Your task to perform on an android device: turn vacation reply on in the gmail app Image 0: 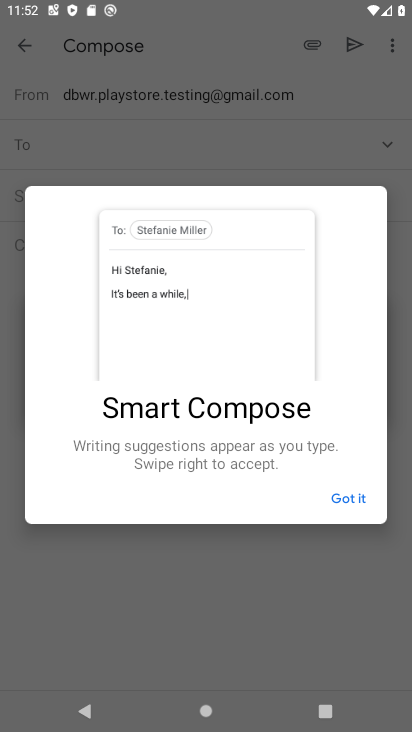
Step 0: press home button
Your task to perform on an android device: turn vacation reply on in the gmail app Image 1: 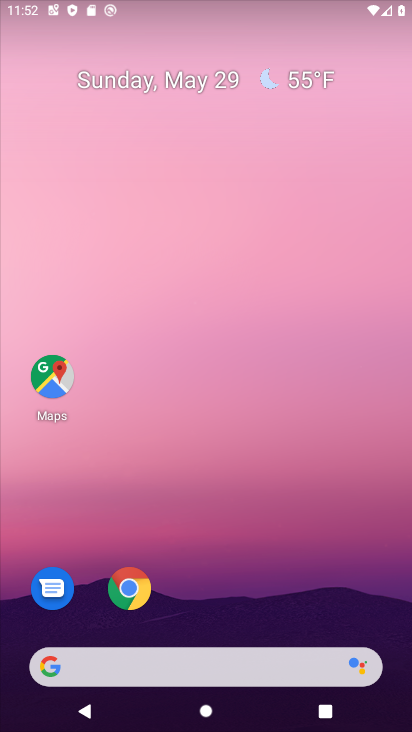
Step 1: drag from (337, 542) to (379, 279)
Your task to perform on an android device: turn vacation reply on in the gmail app Image 2: 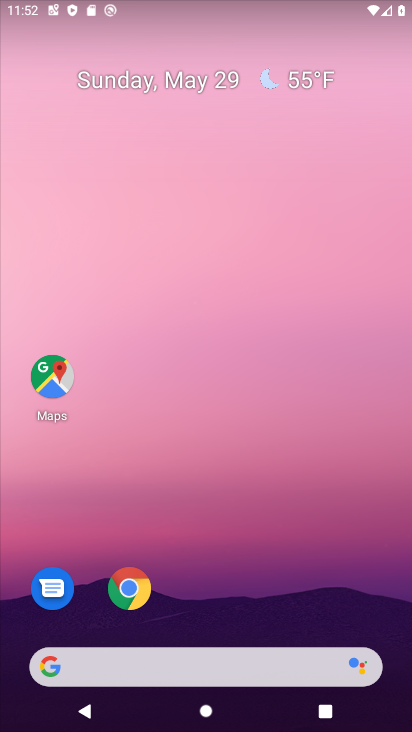
Step 2: drag from (326, 533) to (392, 81)
Your task to perform on an android device: turn vacation reply on in the gmail app Image 3: 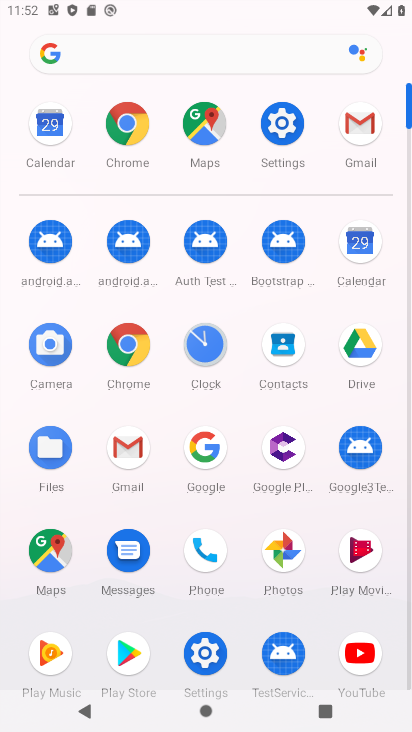
Step 3: click (361, 116)
Your task to perform on an android device: turn vacation reply on in the gmail app Image 4: 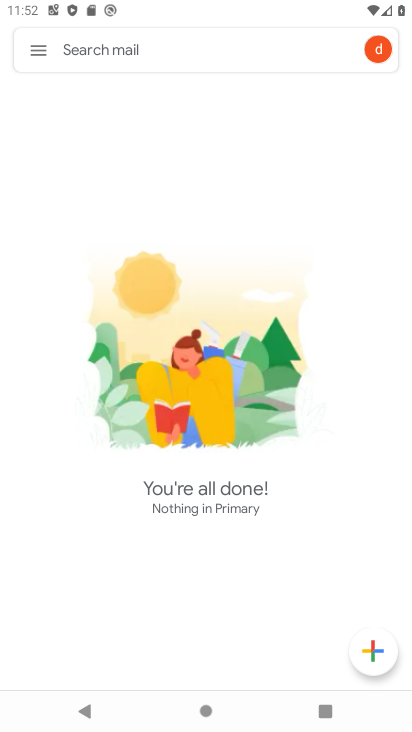
Step 4: click (41, 47)
Your task to perform on an android device: turn vacation reply on in the gmail app Image 5: 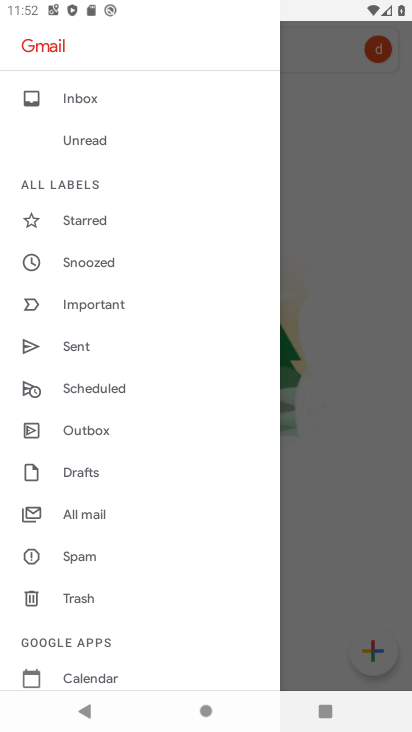
Step 5: drag from (112, 642) to (109, 213)
Your task to perform on an android device: turn vacation reply on in the gmail app Image 6: 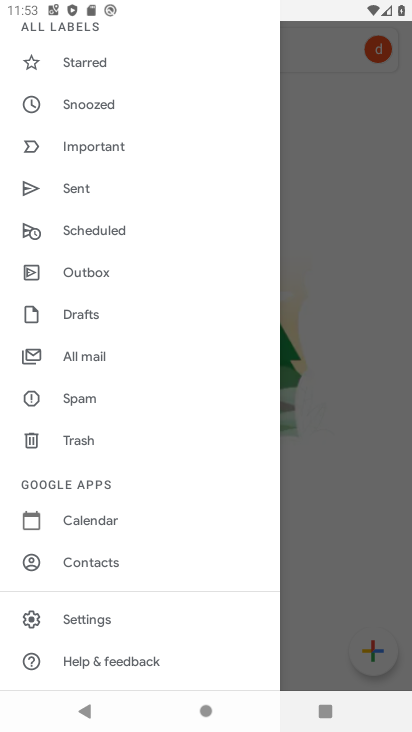
Step 6: drag from (166, 629) to (218, 170)
Your task to perform on an android device: turn vacation reply on in the gmail app Image 7: 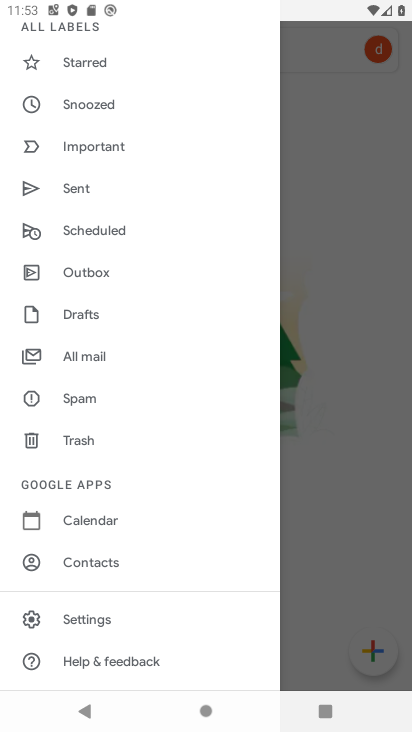
Step 7: click (71, 614)
Your task to perform on an android device: turn vacation reply on in the gmail app Image 8: 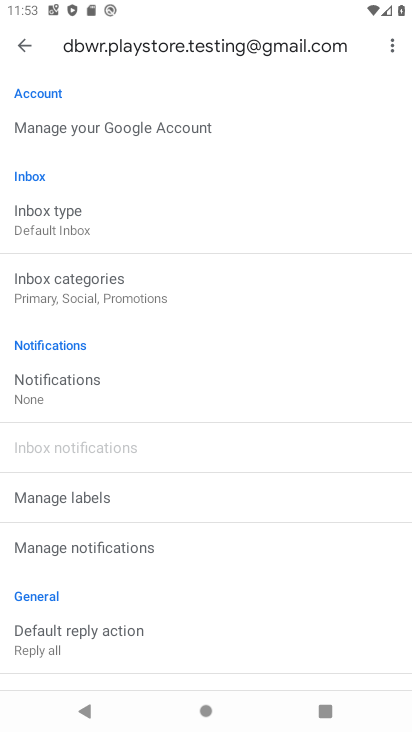
Step 8: drag from (162, 598) to (229, 0)
Your task to perform on an android device: turn vacation reply on in the gmail app Image 9: 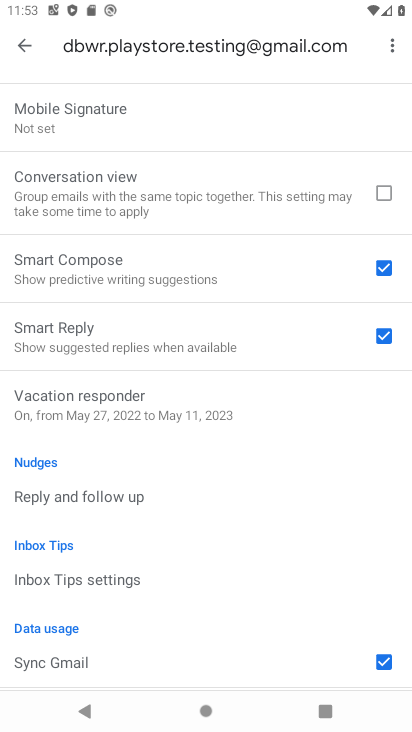
Step 9: drag from (175, 580) to (282, 123)
Your task to perform on an android device: turn vacation reply on in the gmail app Image 10: 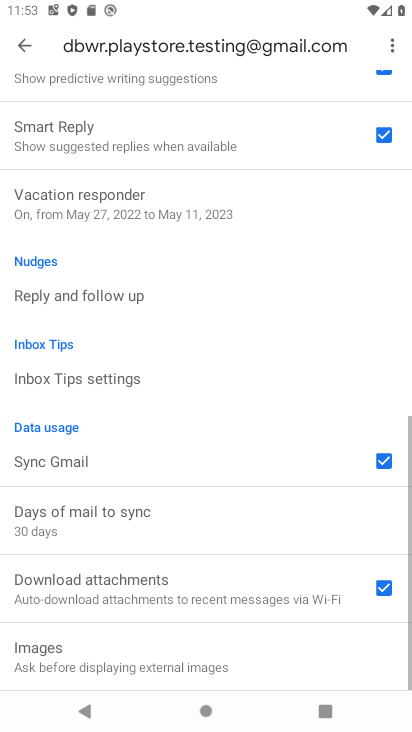
Step 10: drag from (212, 580) to (277, 178)
Your task to perform on an android device: turn vacation reply on in the gmail app Image 11: 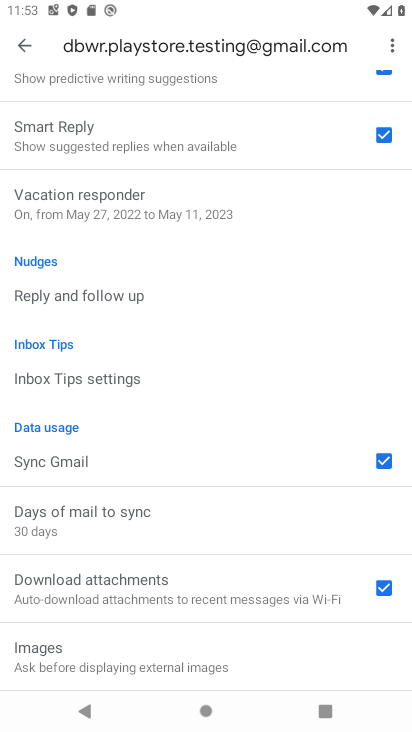
Step 11: click (221, 202)
Your task to perform on an android device: turn vacation reply on in the gmail app Image 12: 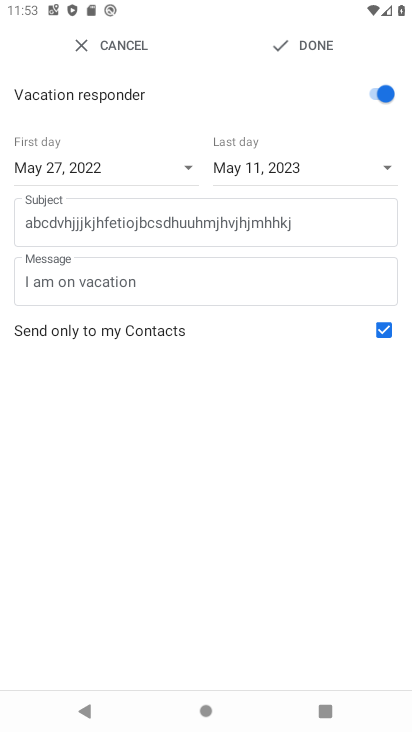
Step 12: task complete